Your task to perform on an android device: Open location settings Image 0: 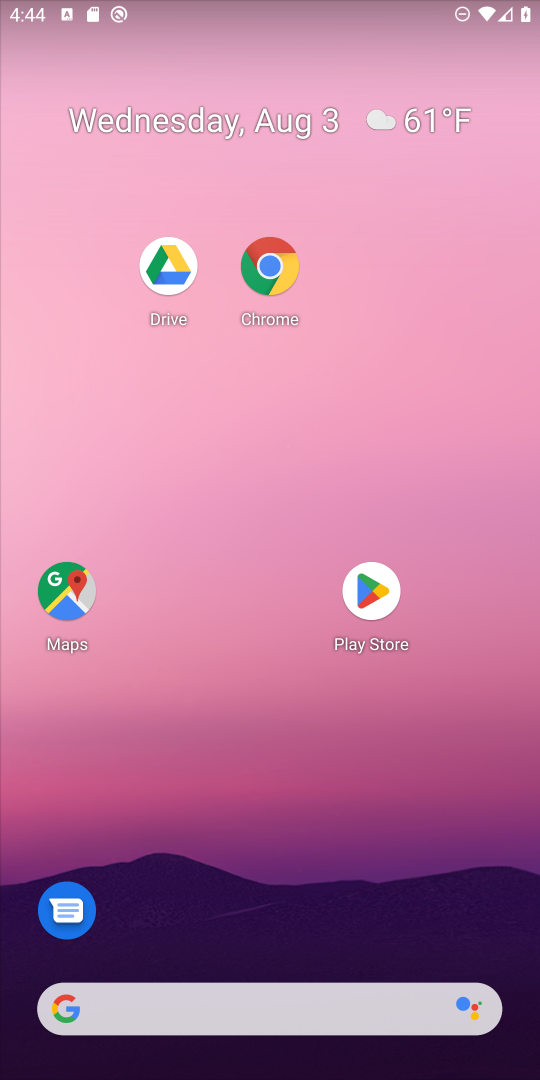
Step 0: drag from (401, 928) to (483, 123)
Your task to perform on an android device: Open location settings Image 1: 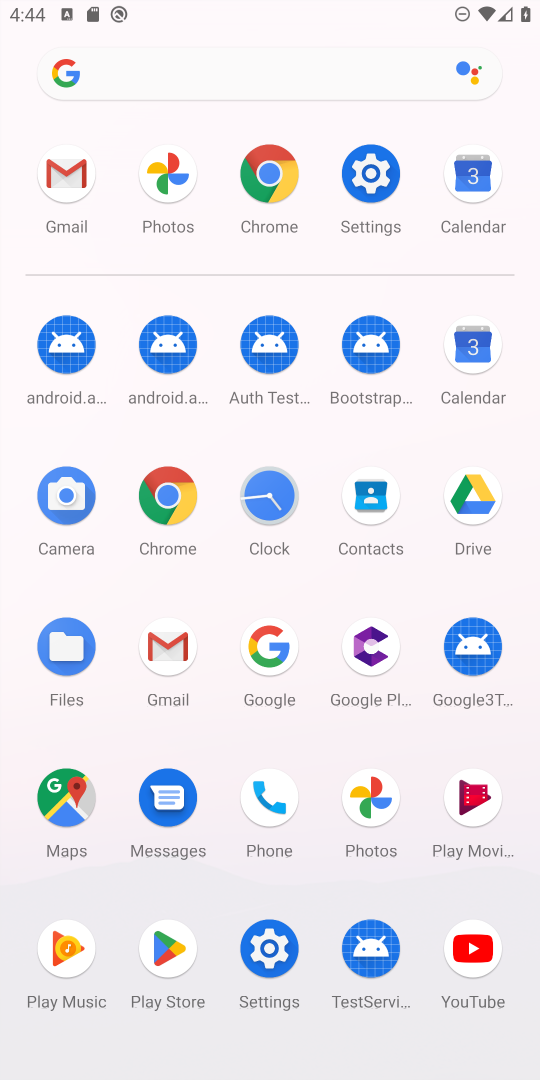
Step 1: click (374, 170)
Your task to perform on an android device: Open location settings Image 2: 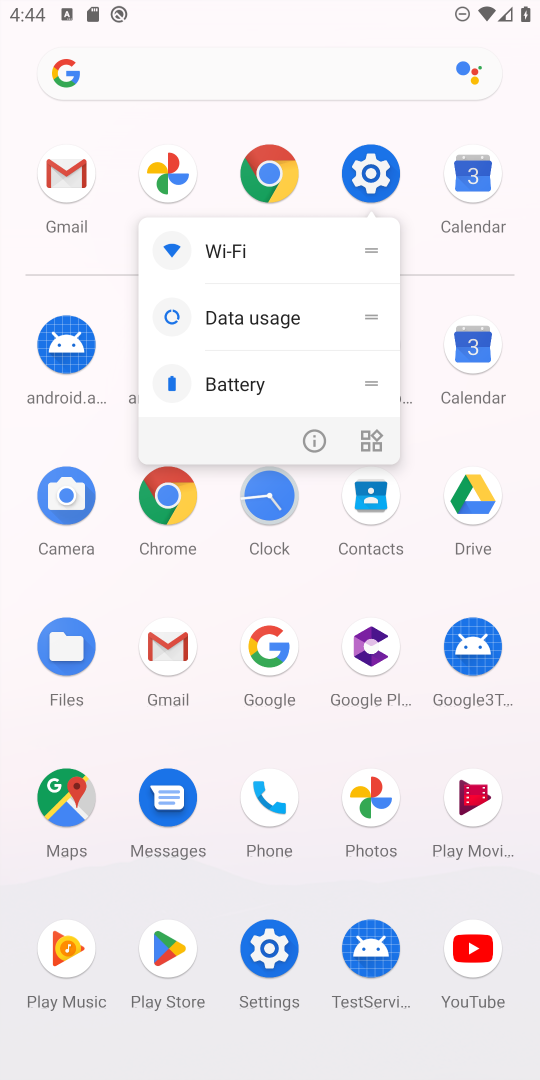
Step 2: click (372, 172)
Your task to perform on an android device: Open location settings Image 3: 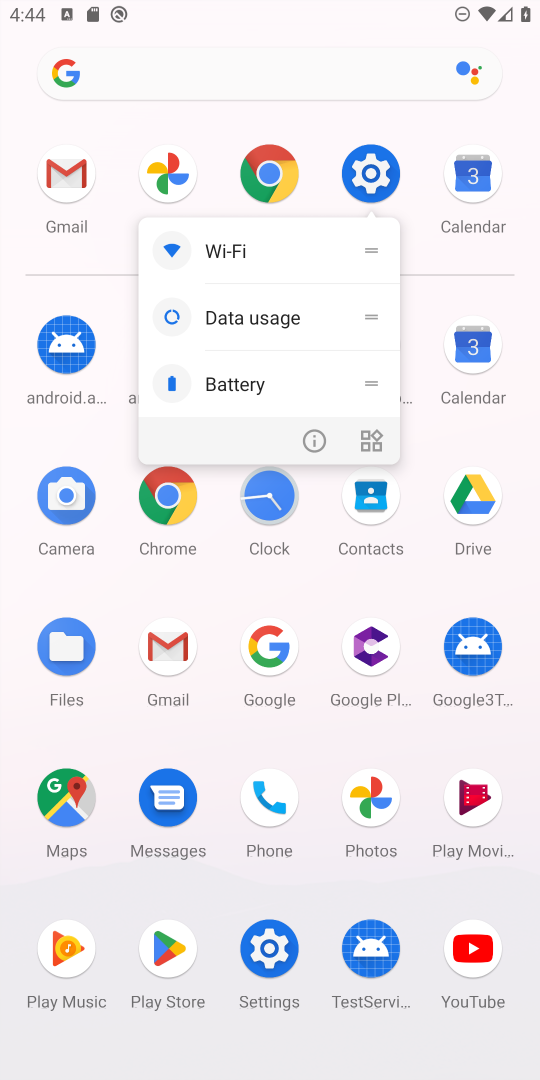
Step 3: click (372, 172)
Your task to perform on an android device: Open location settings Image 4: 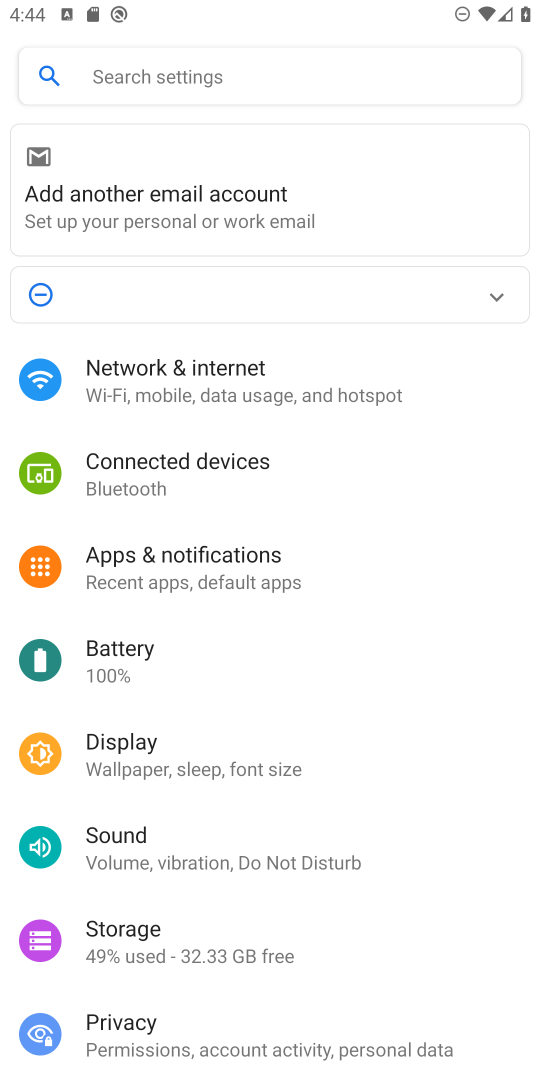
Step 4: drag from (240, 1079) to (117, 866)
Your task to perform on an android device: Open location settings Image 5: 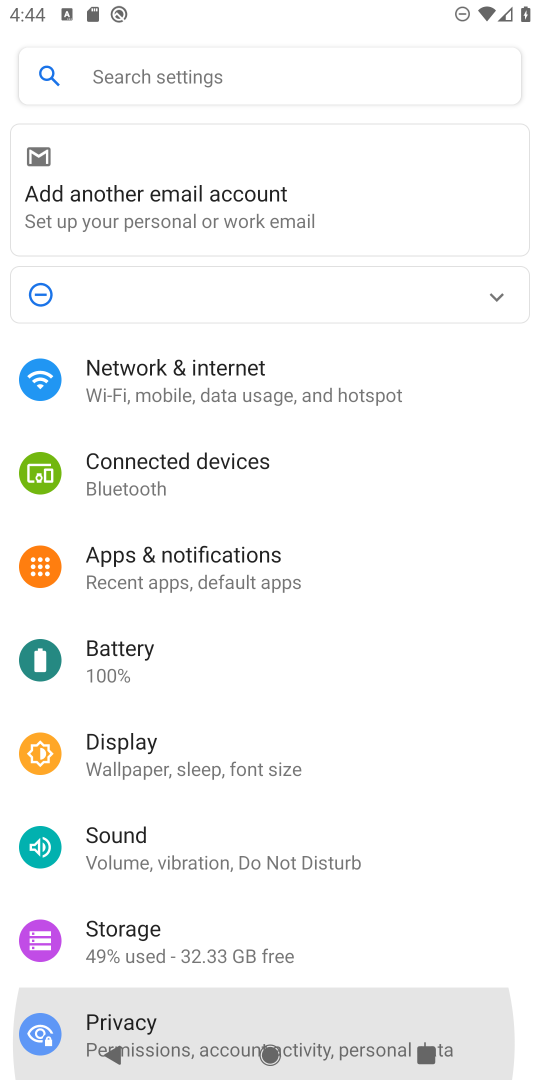
Step 5: drag from (209, 952) to (235, 454)
Your task to perform on an android device: Open location settings Image 6: 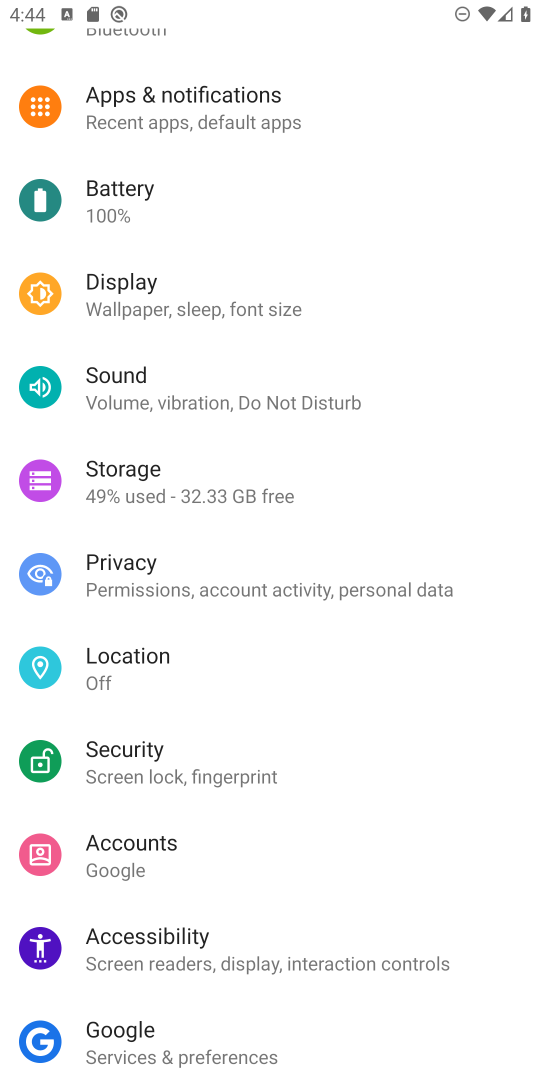
Step 6: click (167, 662)
Your task to perform on an android device: Open location settings Image 7: 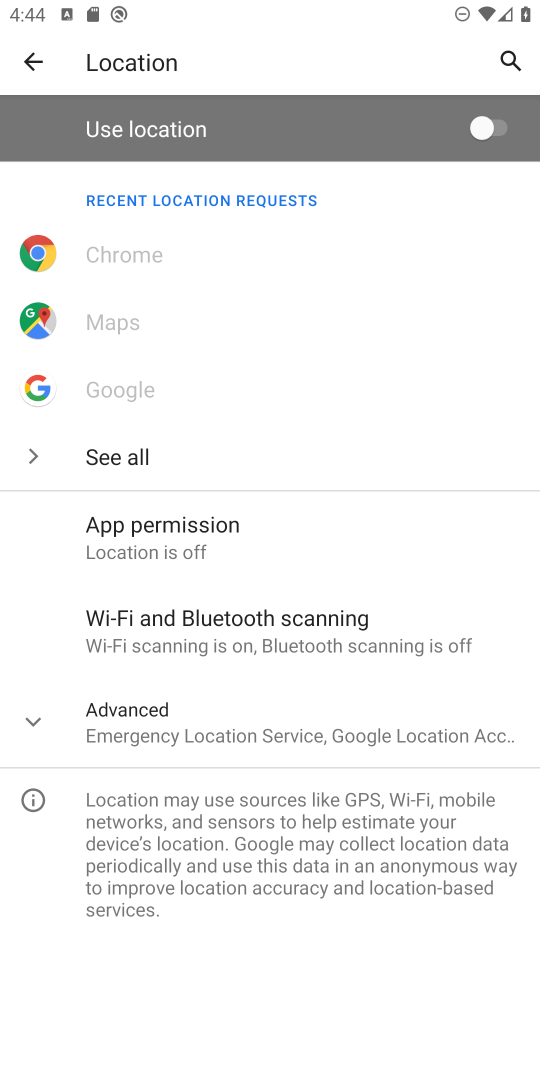
Step 7: task complete